Your task to perform on an android device: What is the speed of light? Image 0: 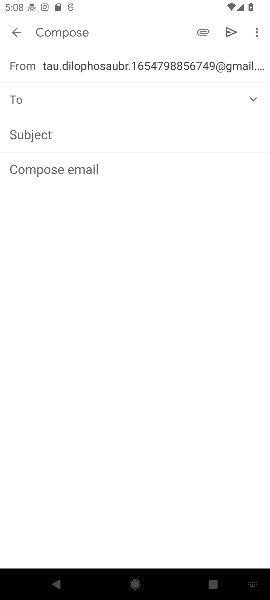
Step 0: press home button
Your task to perform on an android device: What is the speed of light? Image 1: 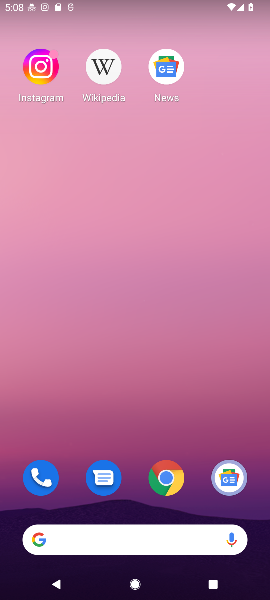
Step 1: click (65, 546)
Your task to perform on an android device: What is the speed of light? Image 2: 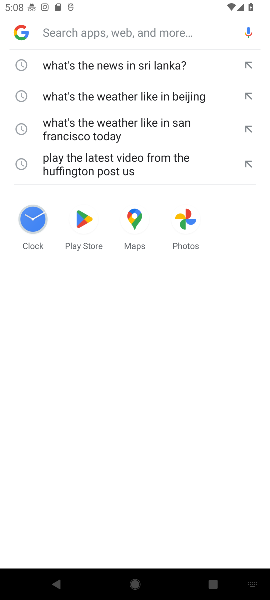
Step 2: type " the speed of light?"
Your task to perform on an android device: What is the speed of light? Image 3: 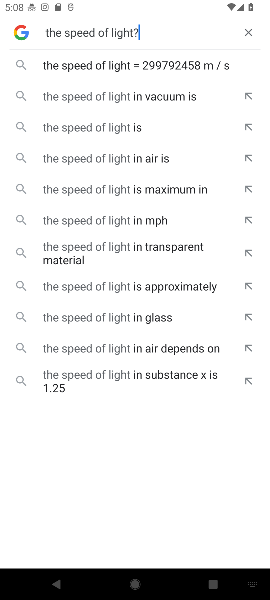
Step 3: click (124, 70)
Your task to perform on an android device: What is the speed of light? Image 4: 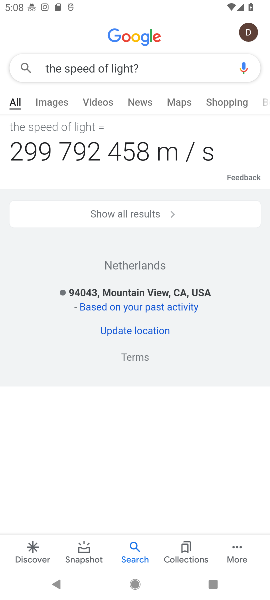
Step 4: task complete